Your task to perform on an android device: allow notifications from all sites in the chrome app Image 0: 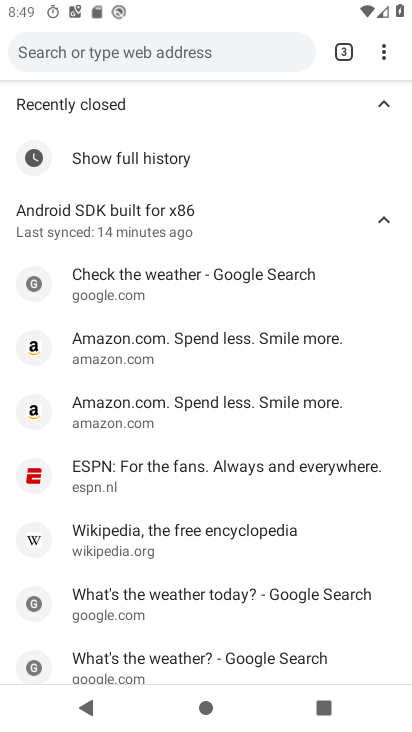
Step 0: press home button
Your task to perform on an android device: allow notifications from all sites in the chrome app Image 1: 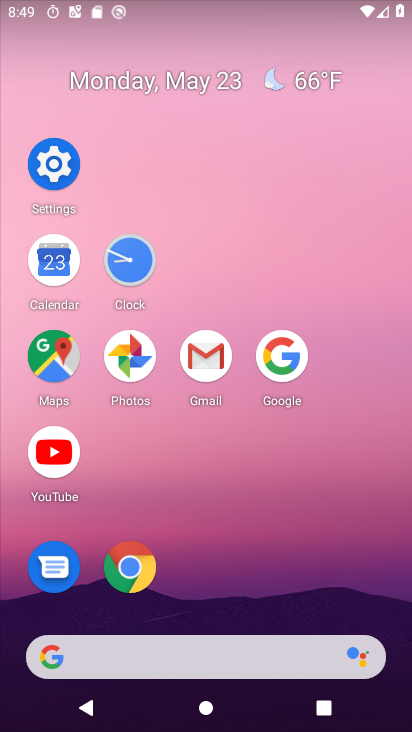
Step 1: click (144, 572)
Your task to perform on an android device: allow notifications from all sites in the chrome app Image 2: 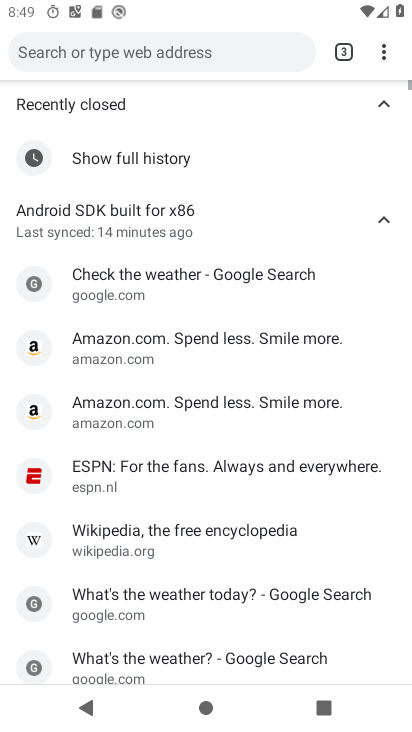
Step 2: click (392, 62)
Your task to perform on an android device: allow notifications from all sites in the chrome app Image 3: 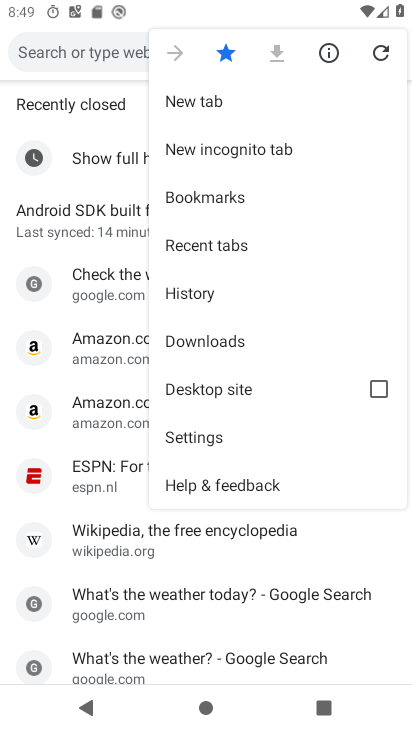
Step 3: click (180, 429)
Your task to perform on an android device: allow notifications from all sites in the chrome app Image 4: 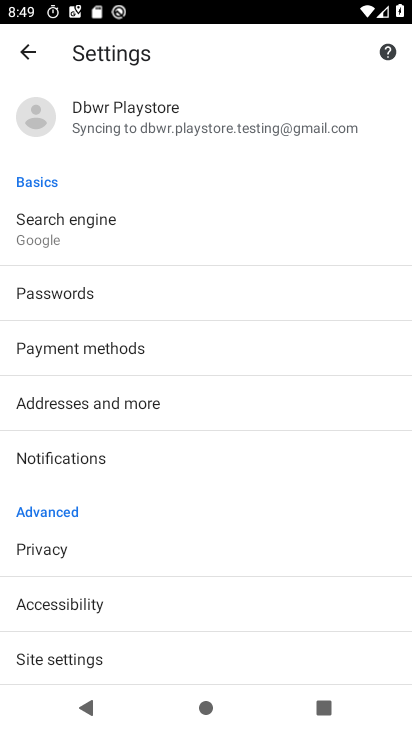
Step 4: drag from (79, 531) to (108, 306)
Your task to perform on an android device: allow notifications from all sites in the chrome app Image 5: 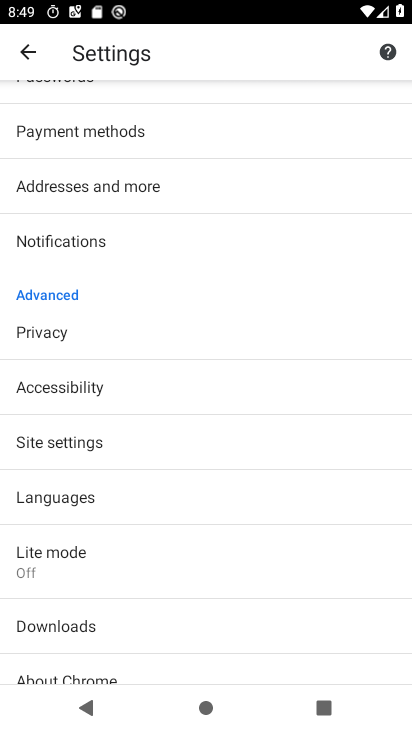
Step 5: click (109, 252)
Your task to perform on an android device: allow notifications from all sites in the chrome app Image 6: 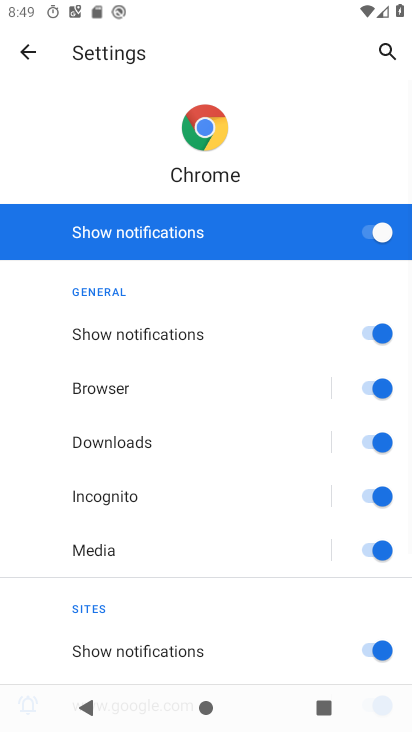
Step 6: task complete